Your task to perform on an android device: Go to accessibility settings Image 0: 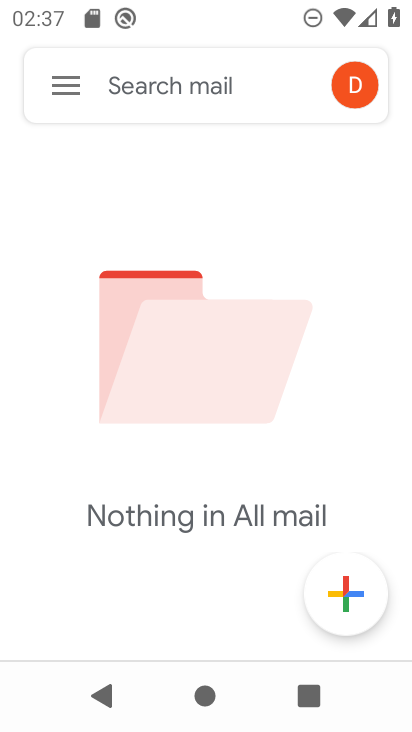
Step 0: press home button
Your task to perform on an android device: Go to accessibility settings Image 1: 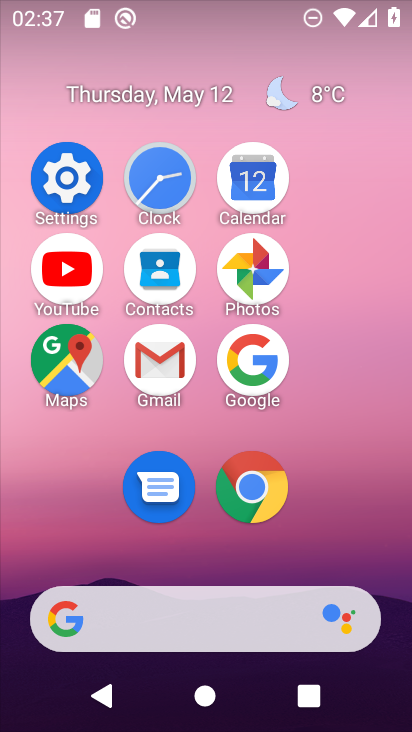
Step 1: click (64, 165)
Your task to perform on an android device: Go to accessibility settings Image 2: 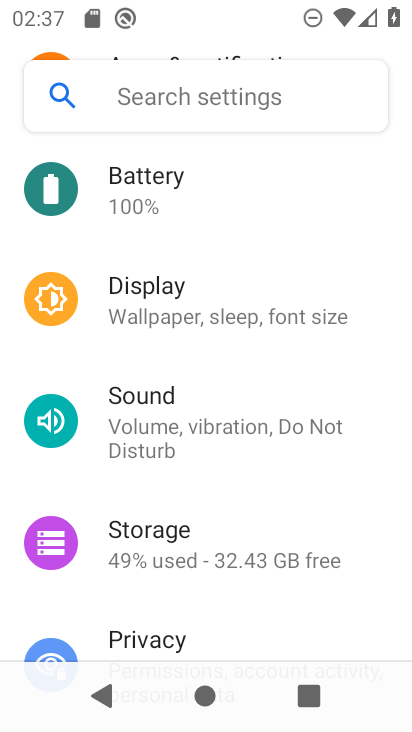
Step 2: drag from (267, 631) to (236, 160)
Your task to perform on an android device: Go to accessibility settings Image 3: 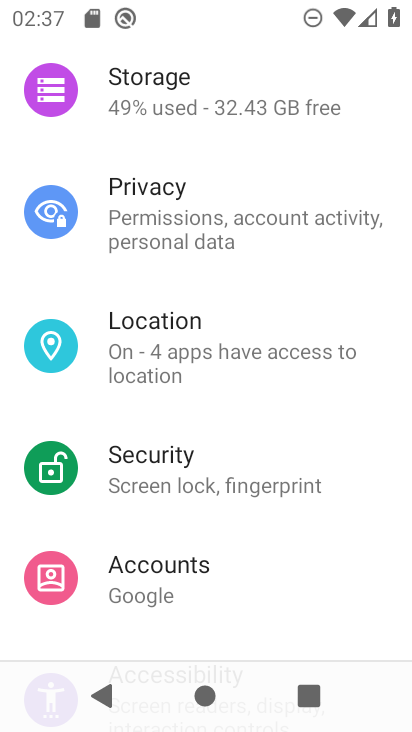
Step 3: drag from (304, 583) to (228, 145)
Your task to perform on an android device: Go to accessibility settings Image 4: 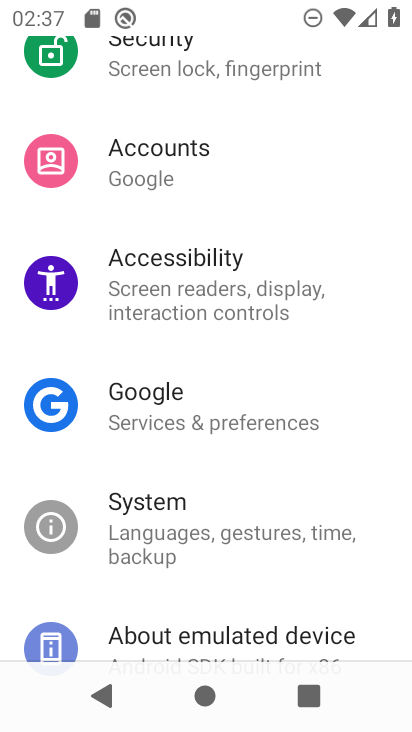
Step 4: click (229, 262)
Your task to perform on an android device: Go to accessibility settings Image 5: 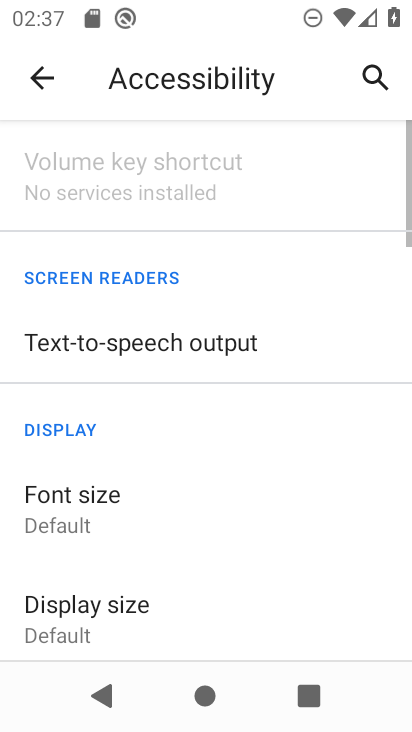
Step 5: task complete